Your task to perform on an android device: Open wifi settings Image 0: 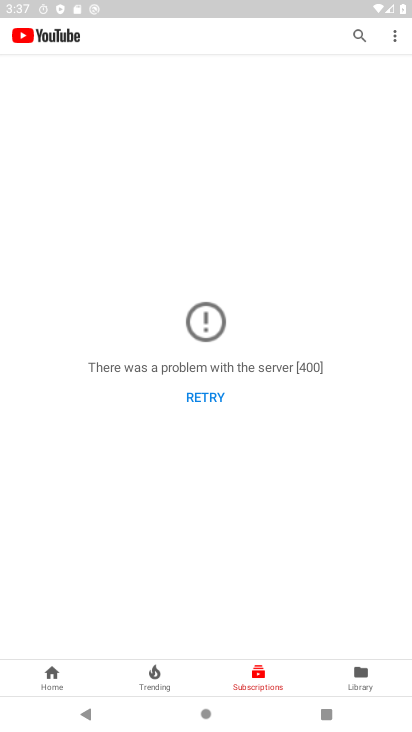
Step 0: press home button
Your task to perform on an android device: Open wifi settings Image 1: 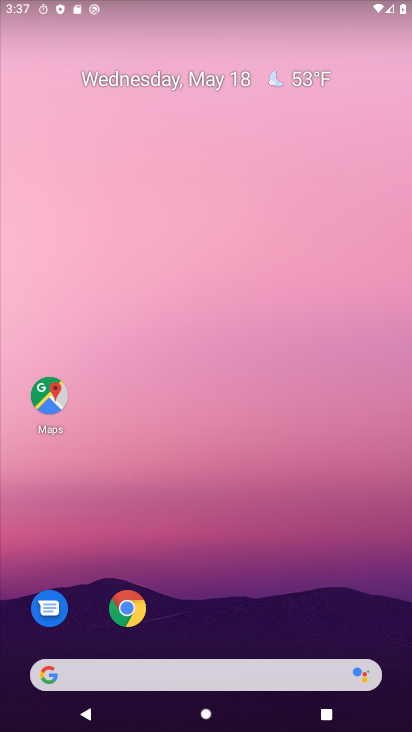
Step 1: drag from (192, 673) to (234, 19)
Your task to perform on an android device: Open wifi settings Image 2: 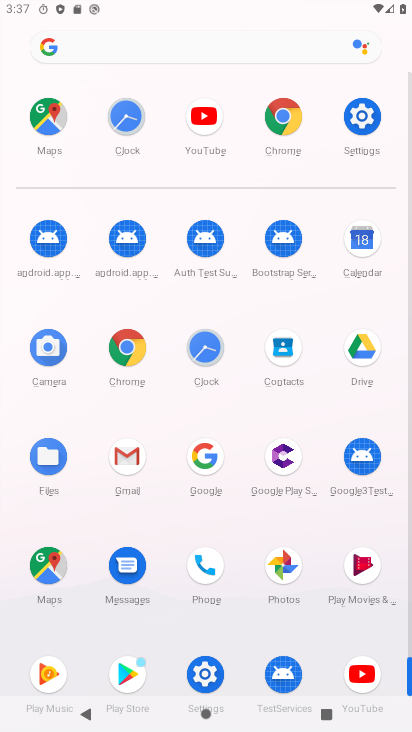
Step 2: click (359, 125)
Your task to perform on an android device: Open wifi settings Image 3: 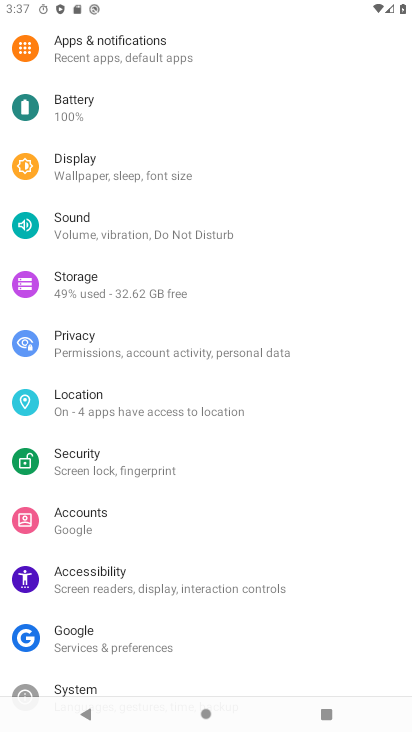
Step 3: drag from (142, 119) to (198, 694)
Your task to perform on an android device: Open wifi settings Image 4: 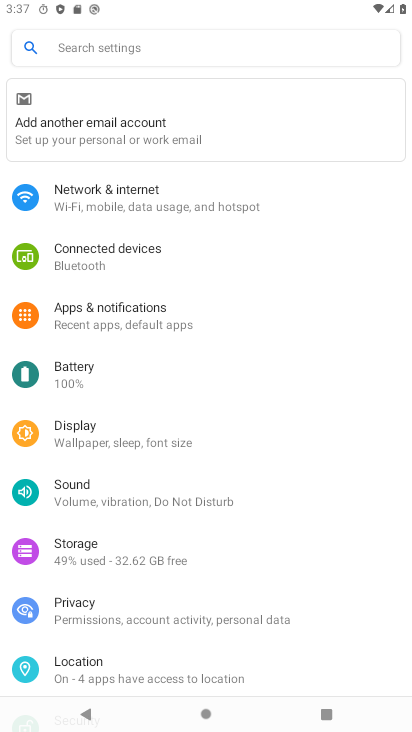
Step 4: click (194, 193)
Your task to perform on an android device: Open wifi settings Image 5: 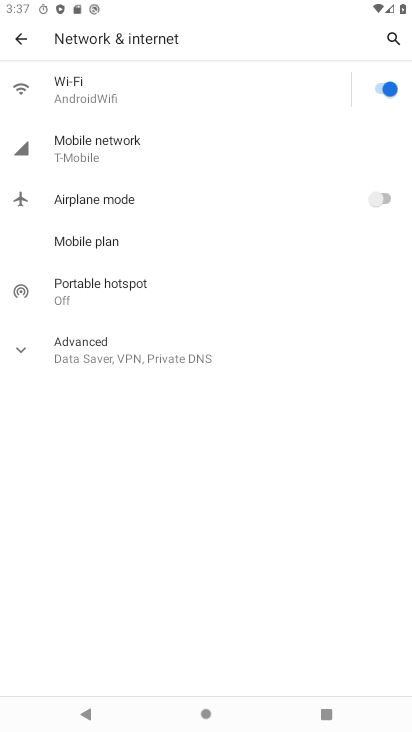
Step 5: task complete